Your task to perform on an android device: Go to calendar. Show me events next week Image 0: 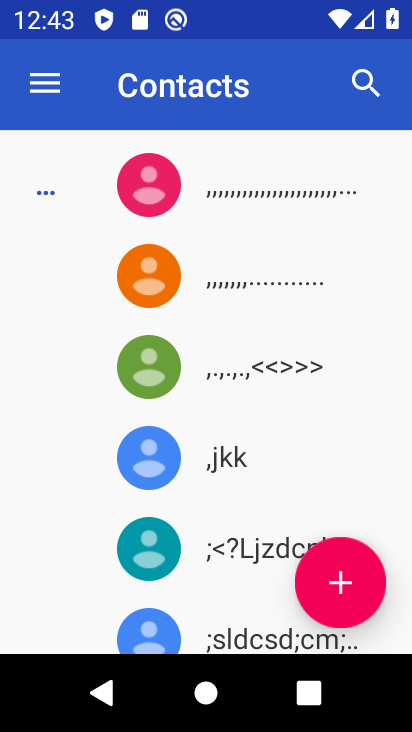
Step 0: press back button
Your task to perform on an android device: Go to calendar. Show me events next week Image 1: 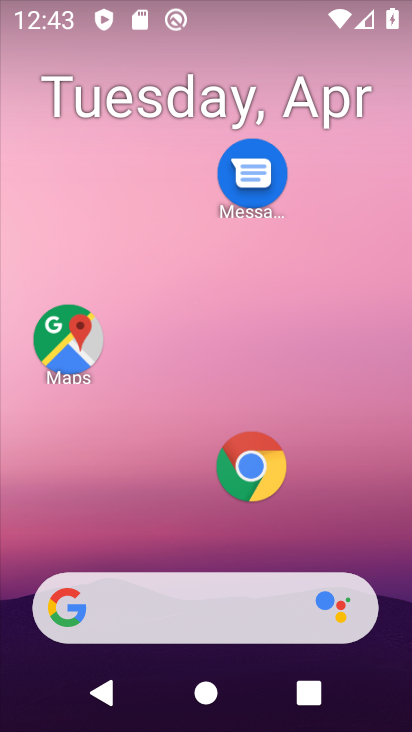
Step 1: drag from (160, 514) to (215, 65)
Your task to perform on an android device: Go to calendar. Show me events next week Image 2: 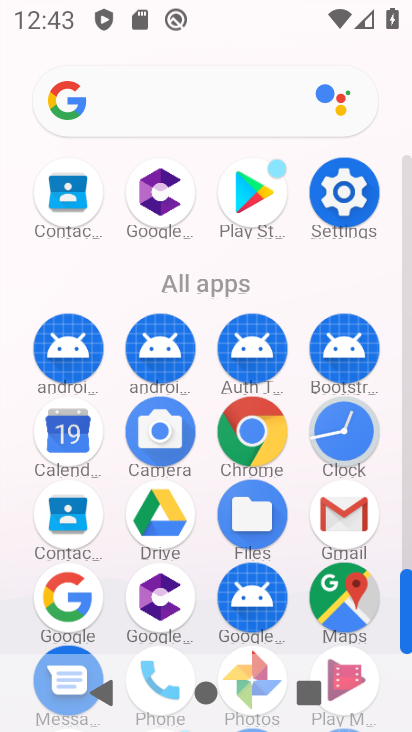
Step 2: click (72, 437)
Your task to perform on an android device: Go to calendar. Show me events next week Image 3: 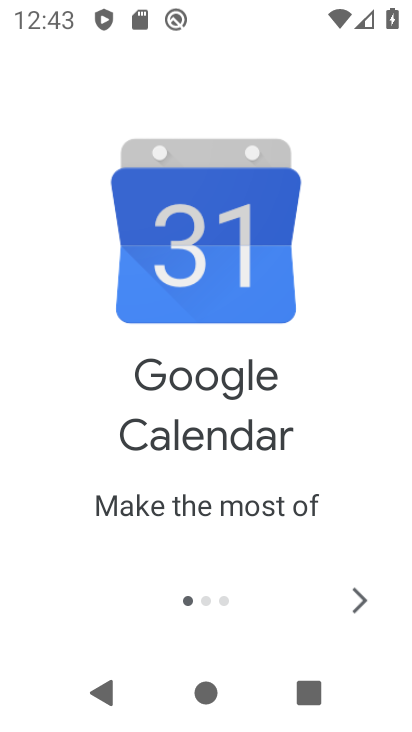
Step 3: click (363, 588)
Your task to perform on an android device: Go to calendar. Show me events next week Image 4: 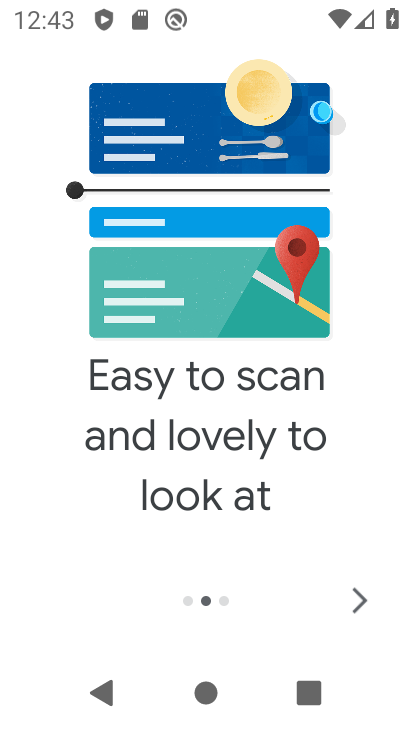
Step 4: click (363, 588)
Your task to perform on an android device: Go to calendar. Show me events next week Image 5: 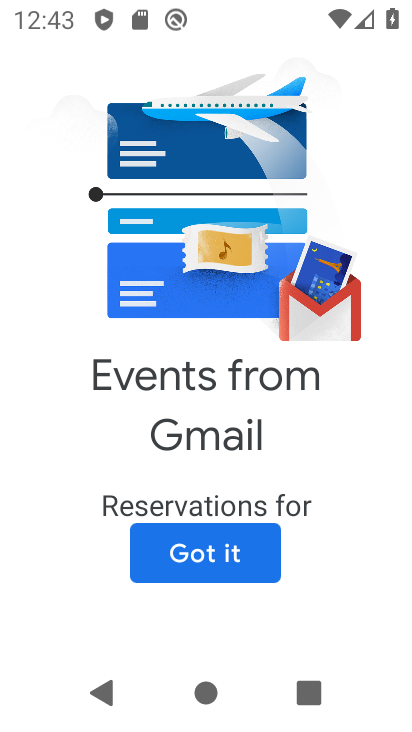
Step 5: click (245, 545)
Your task to perform on an android device: Go to calendar. Show me events next week Image 6: 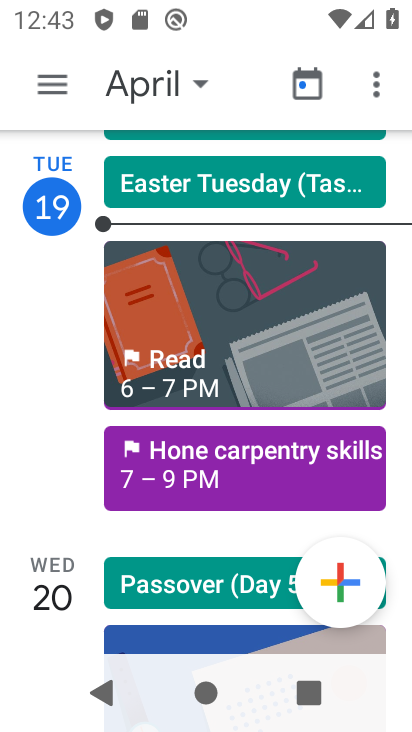
Step 6: click (141, 97)
Your task to perform on an android device: Go to calendar. Show me events next week Image 7: 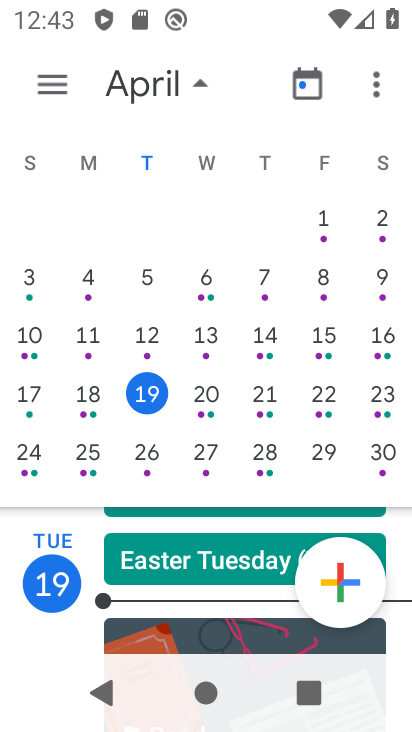
Step 7: click (50, 464)
Your task to perform on an android device: Go to calendar. Show me events next week Image 8: 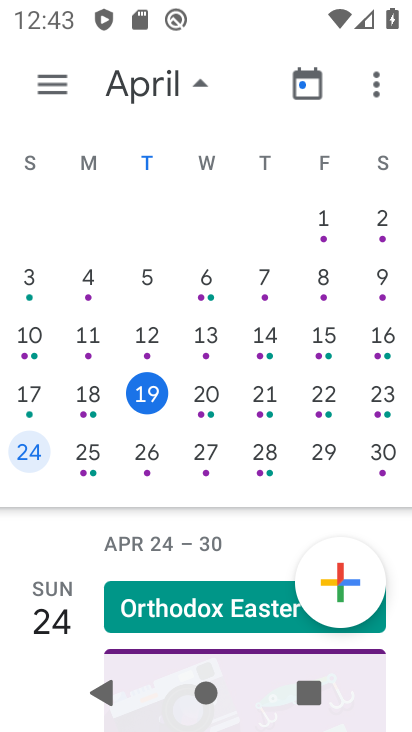
Step 8: click (78, 477)
Your task to perform on an android device: Go to calendar. Show me events next week Image 9: 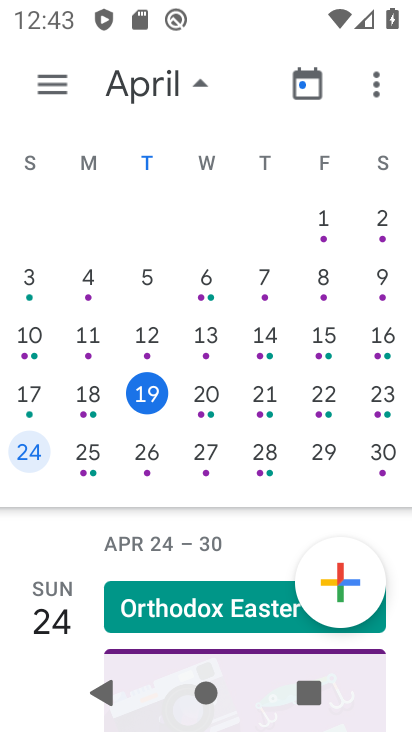
Step 9: click (88, 446)
Your task to perform on an android device: Go to calendar. Show me events next week Image 10: 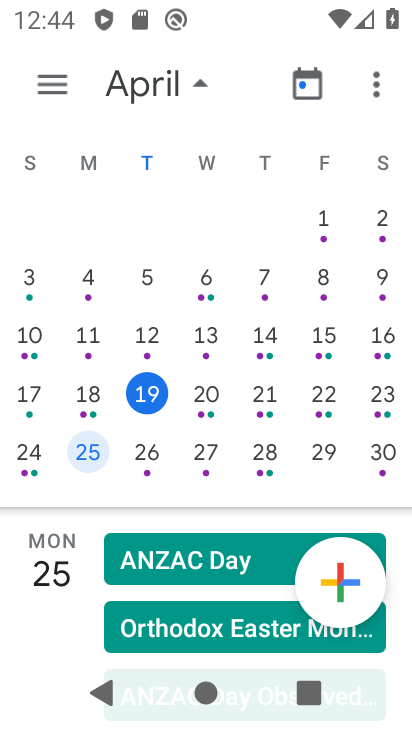
Step 10: click (149, 458)
Your task to perform on an android device: Go to calendar. Show me events next week Image 11: 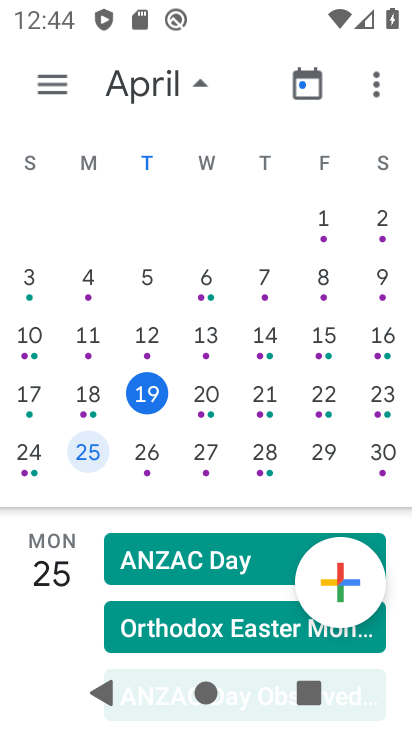
Step 11: click (166, 450)
Your task to perform on an android device: Go to calendar. Show me events next week Image 12: 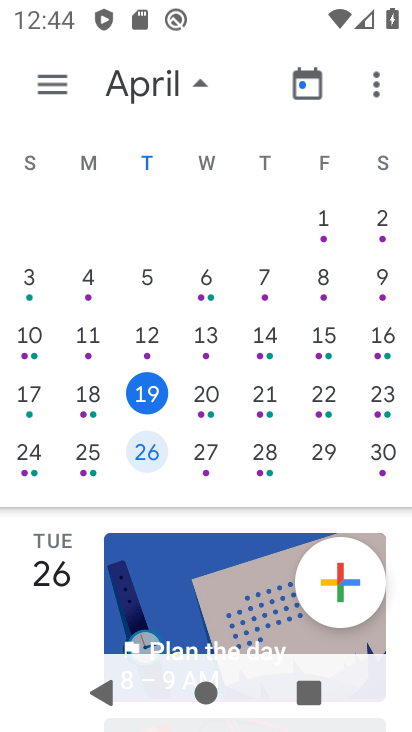
Step 12: click (218, 464)
Your task to perform on an android device: Go to calendar. Show me events next week Image 13: 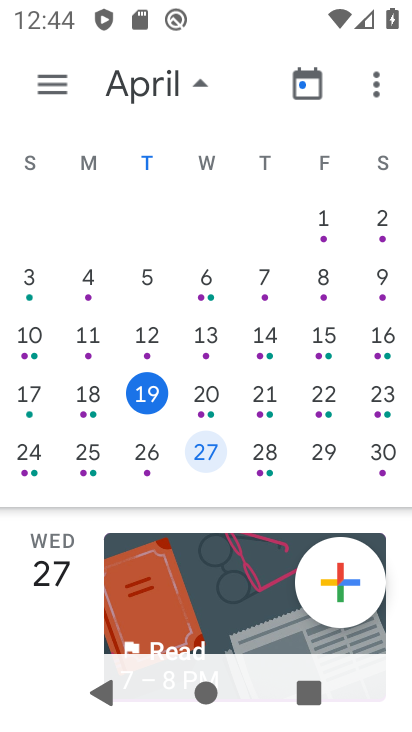
Step 13: click (272, 450)
Your task to perform on an android device: Go to calendar. Show me events next week Image 14: 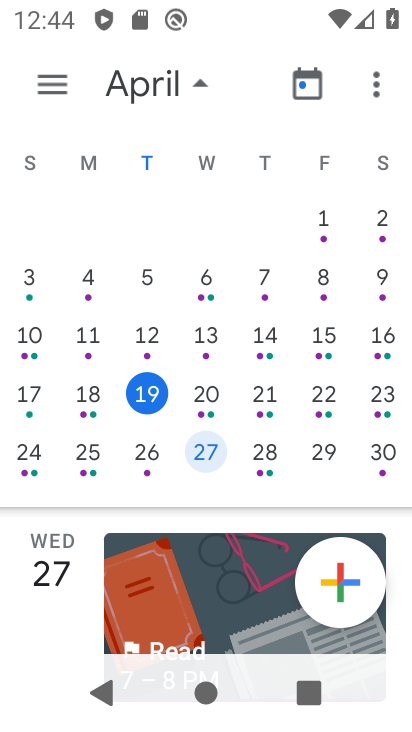
Step 14: click (277, 466)
Your task to perform on an android device: Go to calendar. Show me events next week Image 15: 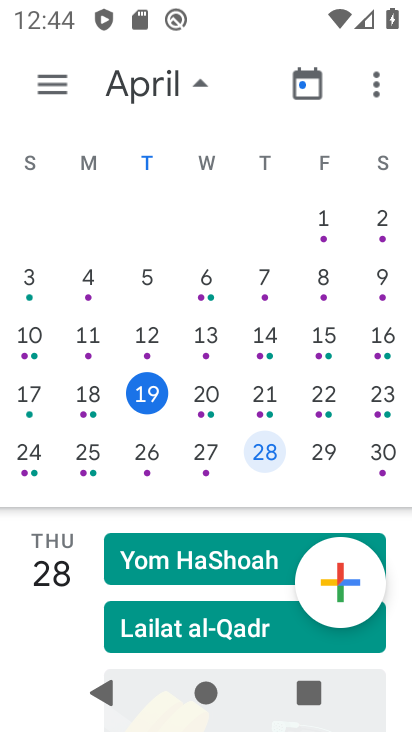
Step 15: click (395, 467)
Your task to perform on an android device: Go to calendar. Show me events next week Image 16: 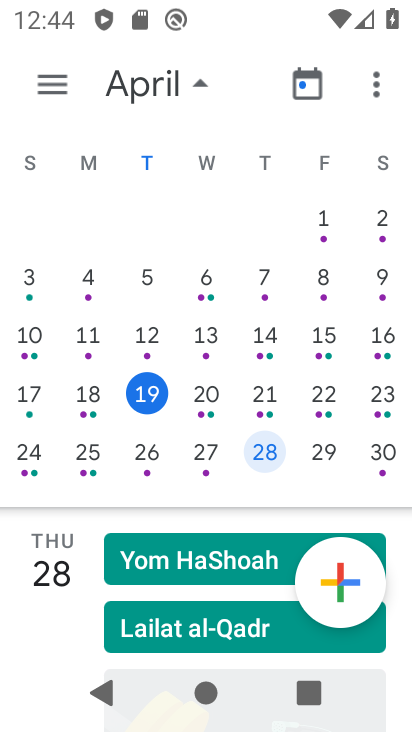
Step 16: click (395, 467)
Your task to perform on an android device: Go to calendar. Show me events next week Image 17: 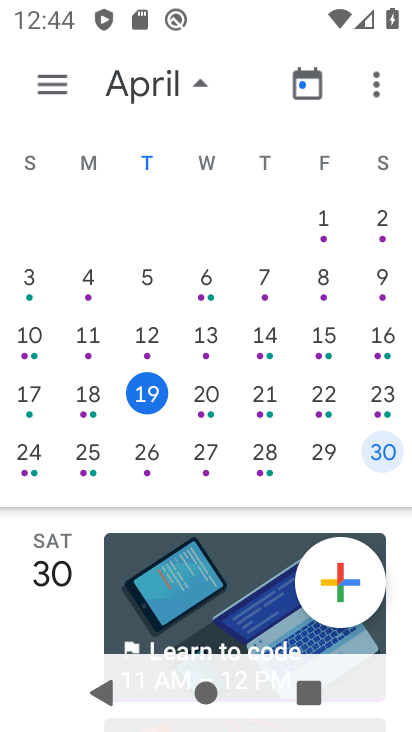
Step 17: task complete